Your task to perform on an android device: Open Maps and search for coffee Image 0: 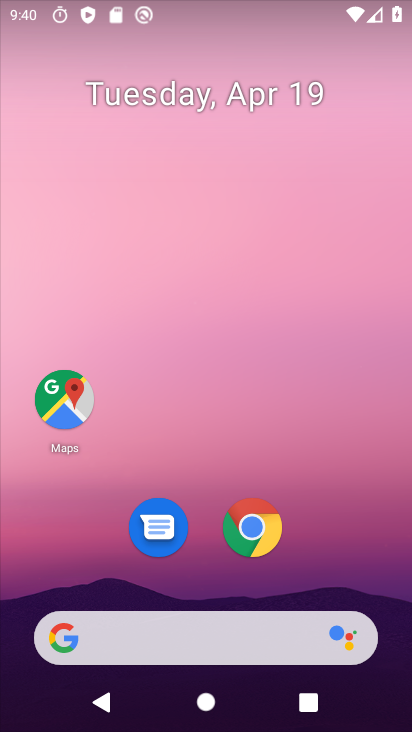
Step 0: drag from (199, 659) to (250, 89)
Your task to perform on an android device: Open Maps and search for coffee Image 1: 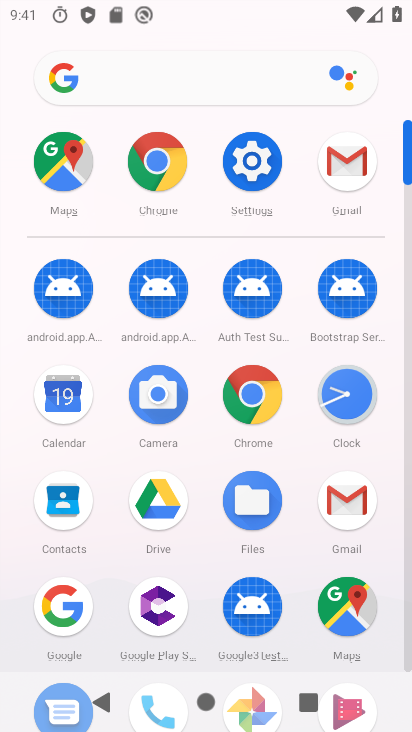
Step 1: click (83, 150)
Your task to perform on an android device: Open Maps and search for coffee Image 2: 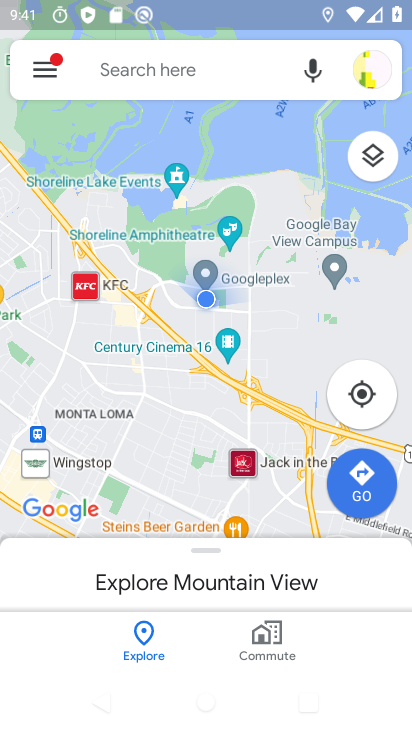
Step 2: click (161, 70)
Your task to perform on an android device: Open Maps and search for coffee Image 3: 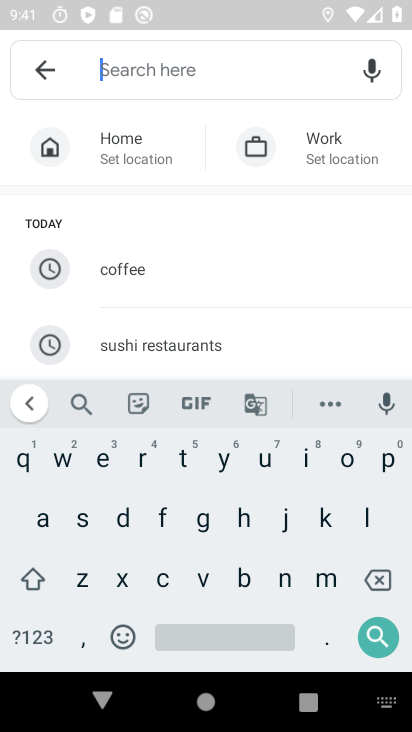
Step 3: click (110, 269)
Your task to perform on an android device: Open Maps and search for coffee Image 4: 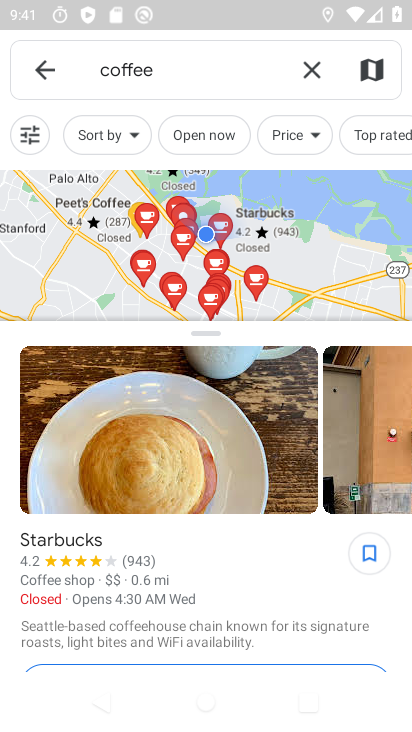
Step 4: click (201, 256)
Your task to perform on an android device: Open Maps and search for coffee Image 5: 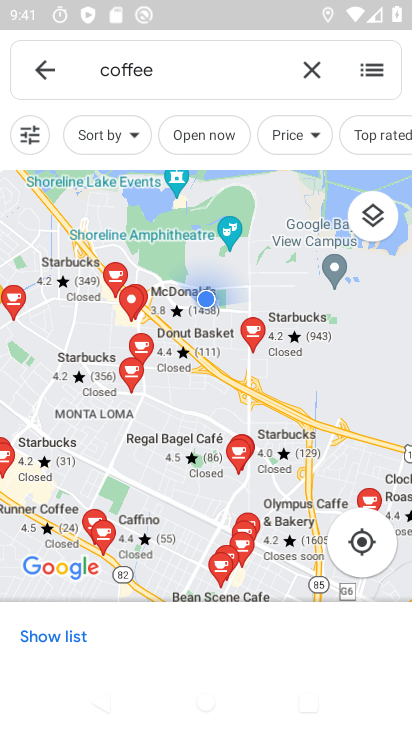
Step 5: task complete